Your task to perform on an android device: add a contact in the contacts app Image 0: 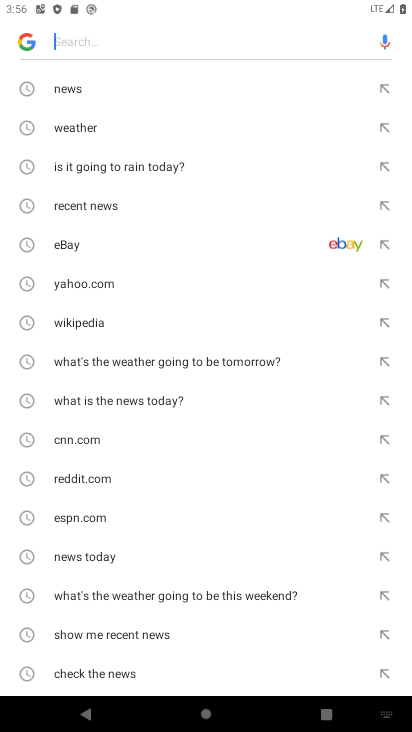
Step 0: press home button
Your task to perform on an android device: add a contact in the contacts app Image 1: 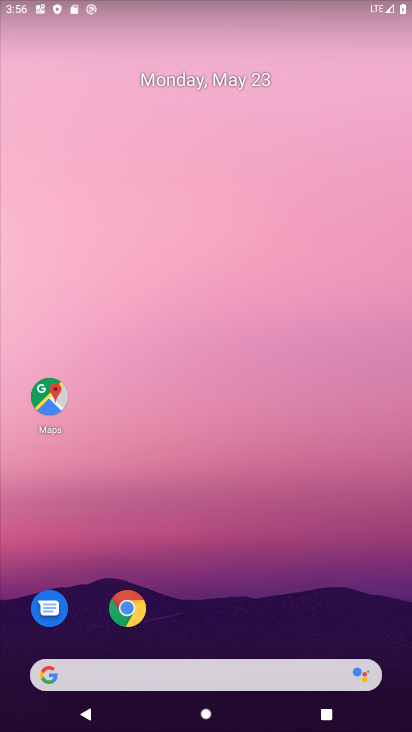
Step 1: drag from (228, 628) to (227, 280)
Your task to perform on an android device: add a contact in the contacts app Image 2: 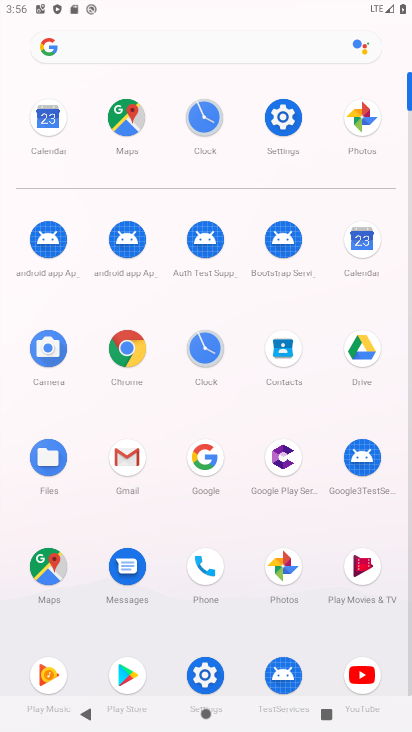
Step 2: click (284, 346)
Your task to perform on an android device: add a contact in the contacts app Image 3: 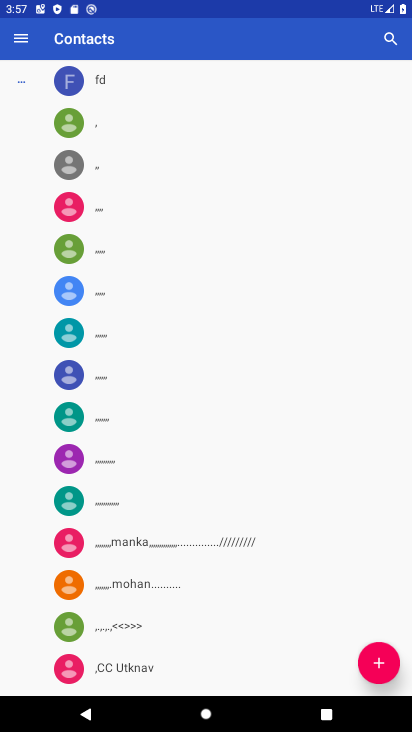
Step 3: click (379, 663)
Your task to perform on an android device: add a contact in the contacts app Image 4: 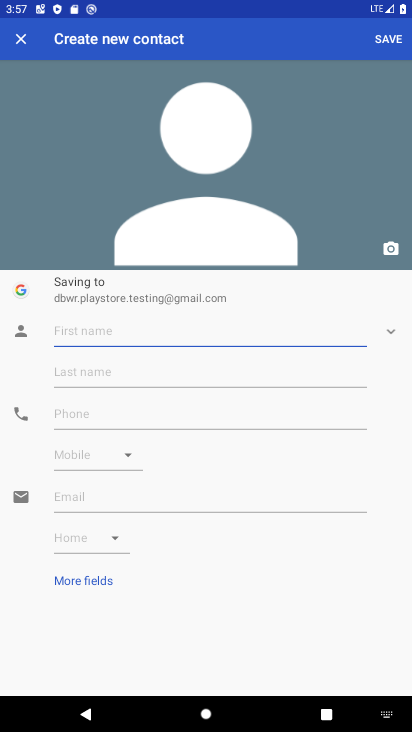
Step 4: click (150, 324)
Your task to perform on an android device: add a contact in the contacts app Image 5: 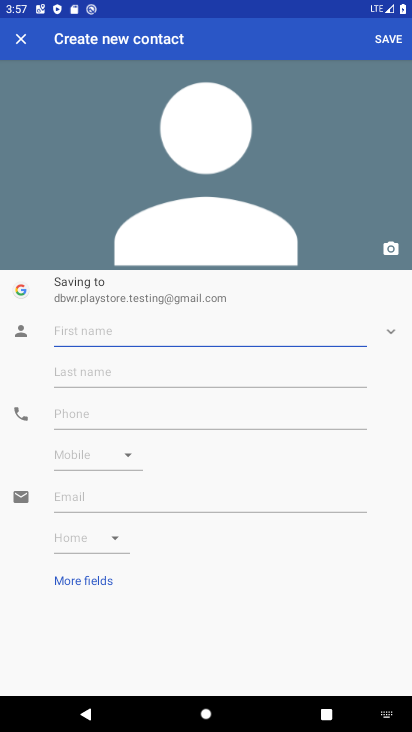
Step 5: type "Kshrija"
Your task to perform on an android device: add a contact in the contacts app Image 6: 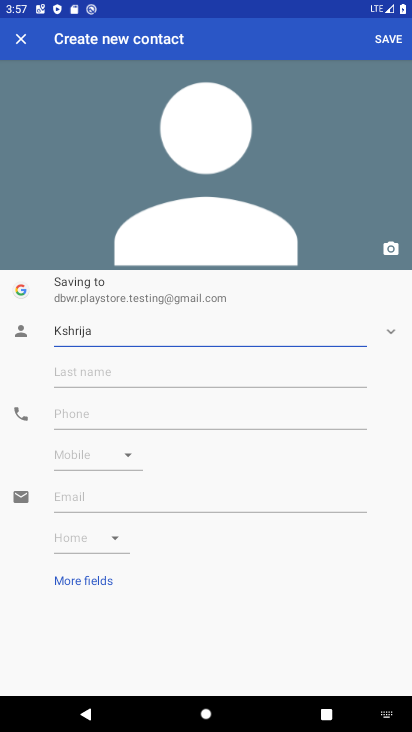
Step 6: click (233, 377)
Your task to perform on an android device: add a contact in the contacts app Image 7: 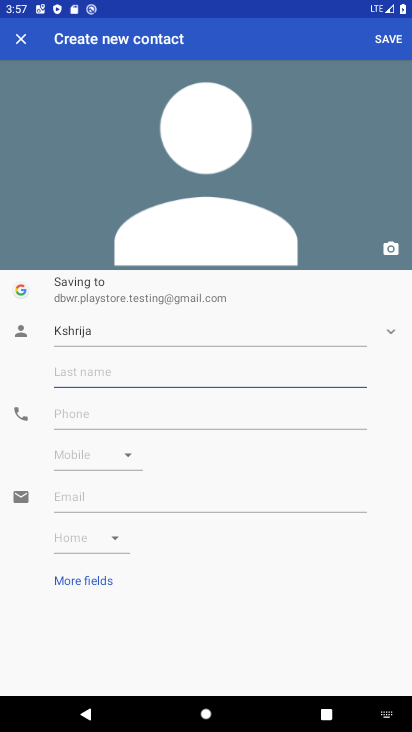
Step 7: type "Chaturvedi"
Your task to perform on an android device: add a contact in the contacts app Image 8: 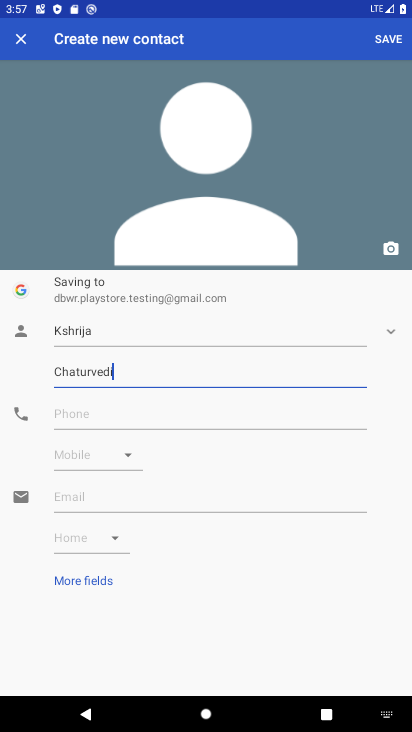
Step 8: click (208, 406)
Your task to perform on an android device: add a contact in the contacts app Image 9: 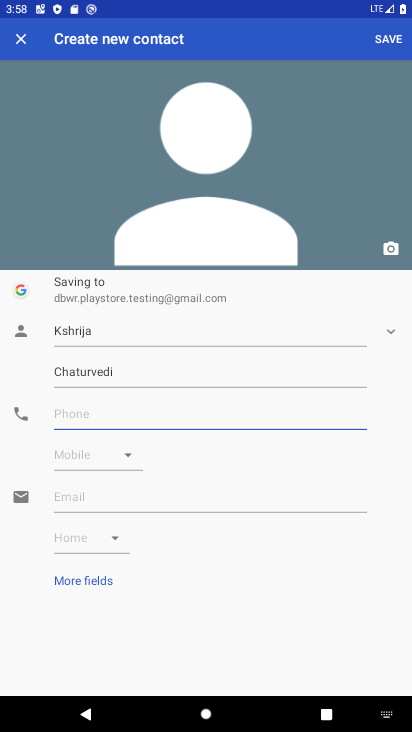
Step 9: type "0987654321"
Your task to perform on an android device: add a contact in the contacts app Image 10: 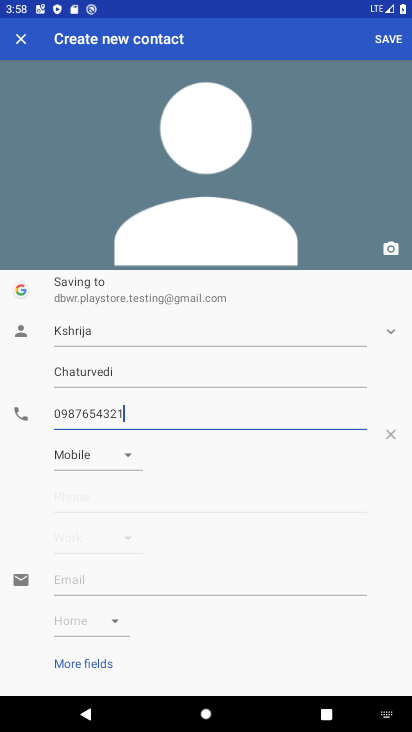
Step 10: type ""
Your task to perform on an android device: add a contact in the contacts app Image 11: 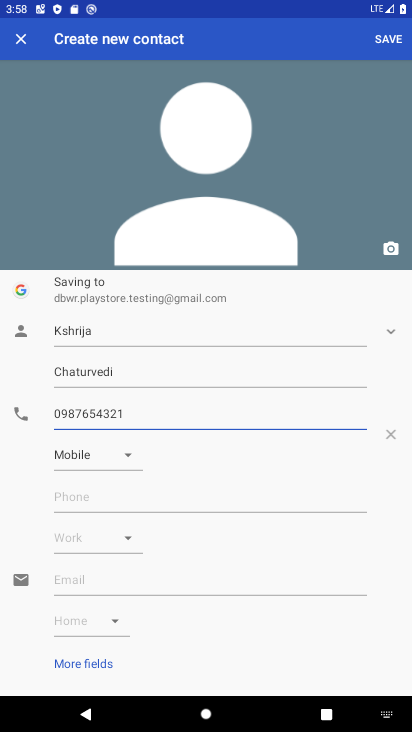
Step 11: click (397, 38)
Your task to perform on an android device: add a contact in the contacts app Image 12: 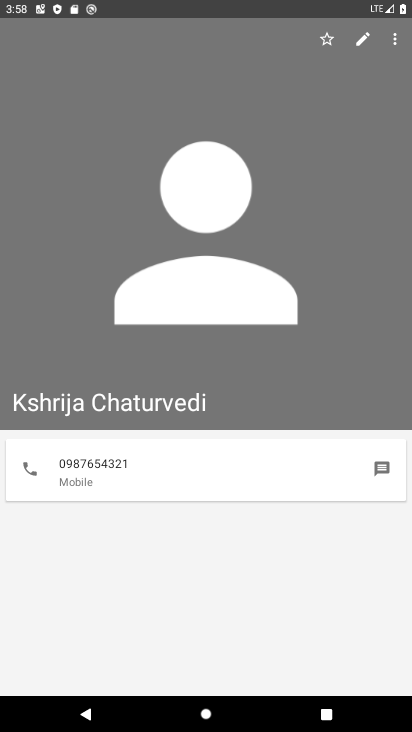
Step 12: task complete